Your task to perform on an android device: Open Maps and search for coffee Image 0: 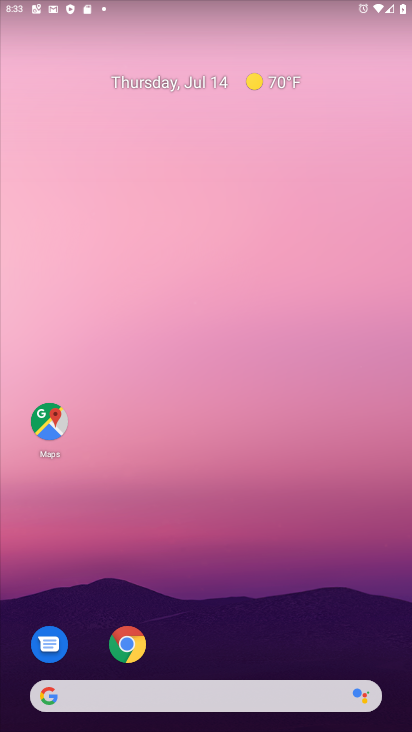
Step 0: drag from (264, 677) to (283, 91)
Your task to perform on an android device: Open Maps and search for coffee Image 1: 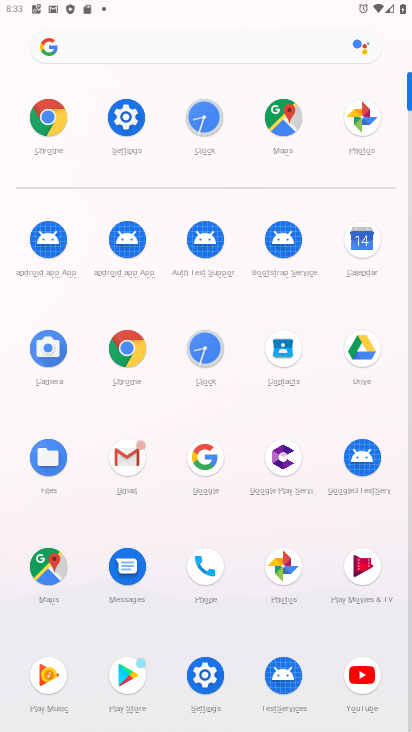
Step 1: click (42, 573)
Your task to perform on an android device: Open Maps and search for coffee Image 2: 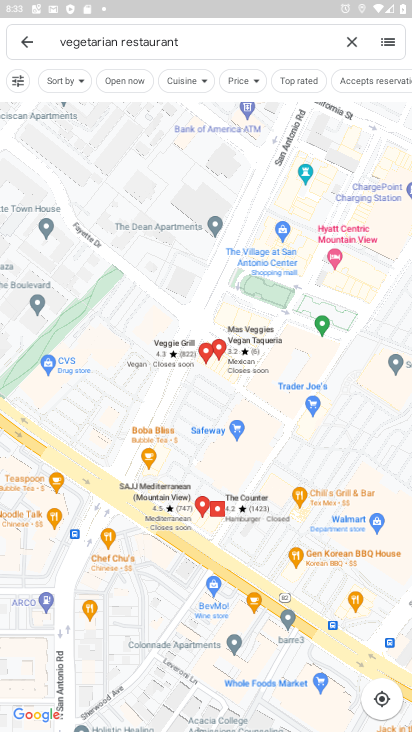
Step 2: click (345, 42)
Your task to perform on an android device: Open Maps and search for coffee Image 3: 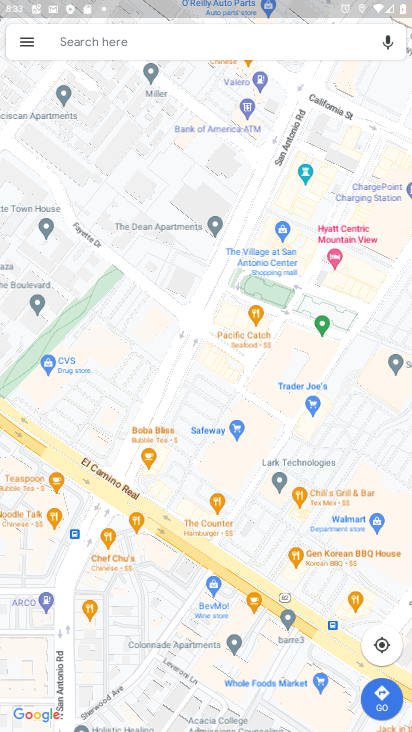
Step 3: click (165, 37)
Your task to perform on an android device: Open Maps and search for coffee Image 4: 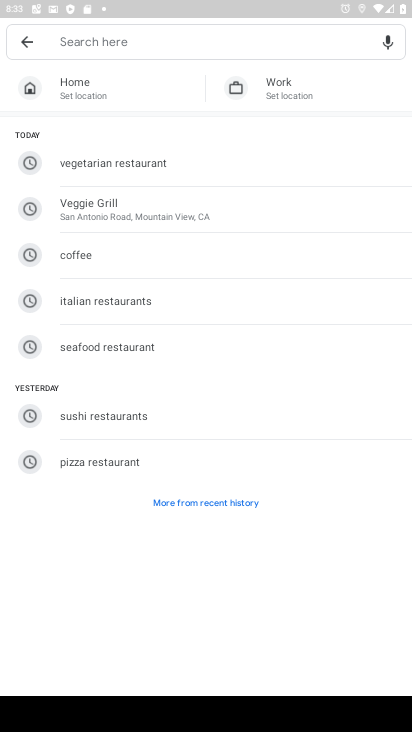
Step 4: click (94, 255)
Your task to perform on an android device: Open Maps and search for coffee Image 5: 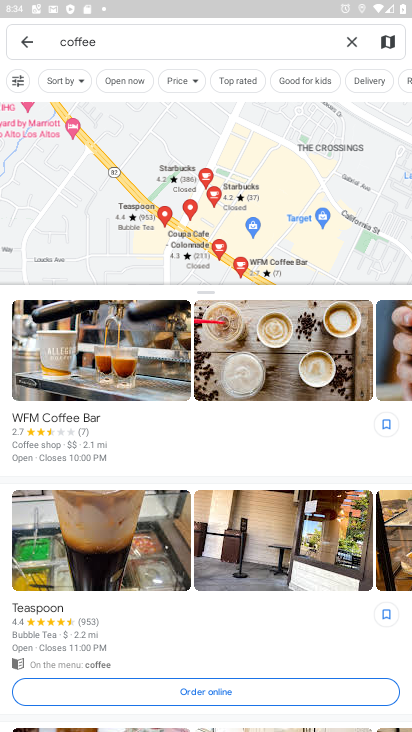
Step 5: task complete